Your task to perform on an android device: toggle location history Image 0: 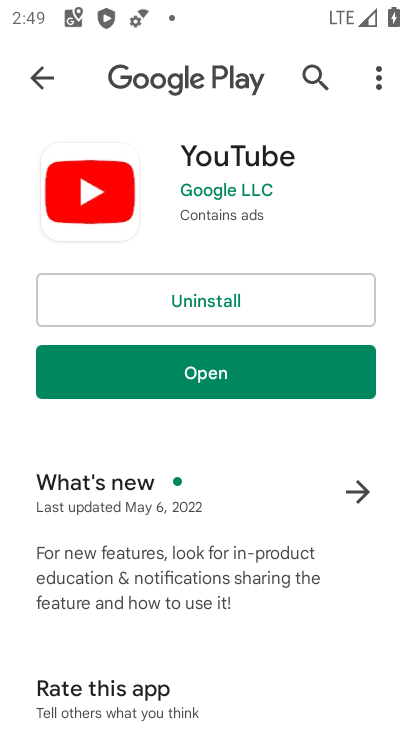
Step 0: press back button
Your task to perform on an android device: toggle location history Image 1: 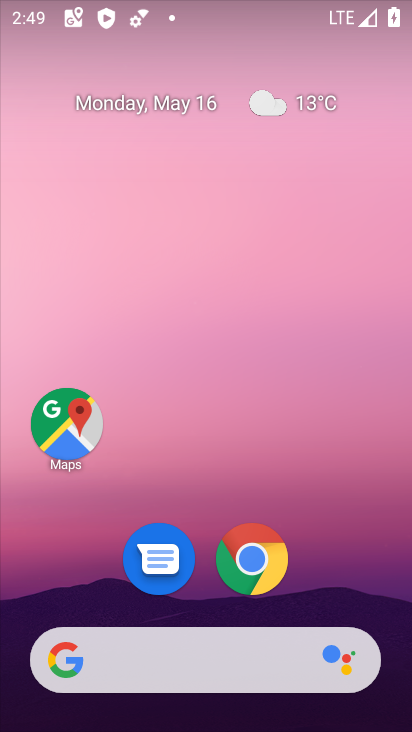
Step 1: click (251, 571)
Your task to perform on an android device: toggle location history Image 2: 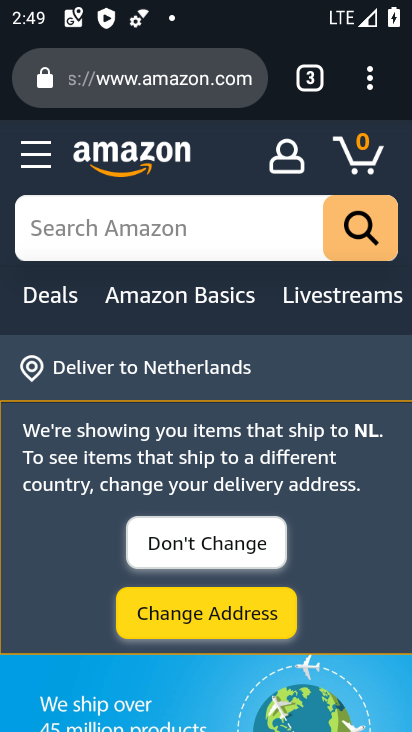
Step 2: drag from (373, 70) to (155, 619)
Your task to perform on an android device: toggle location history Image 3: 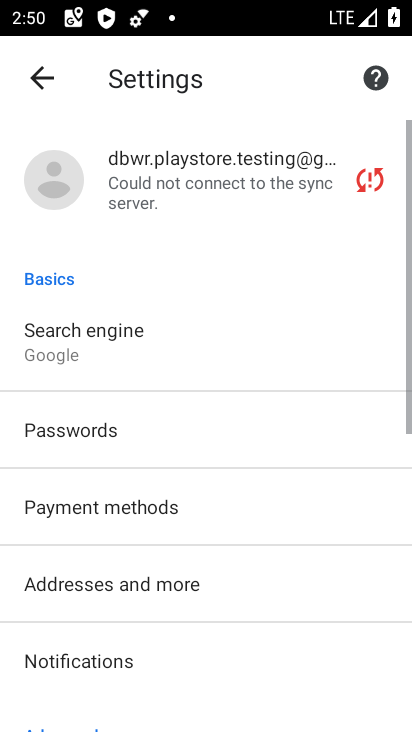
Step 3: drag from (118, 637) to (299, 50)
Your task to perform on an android device: toggle location history Image 4: 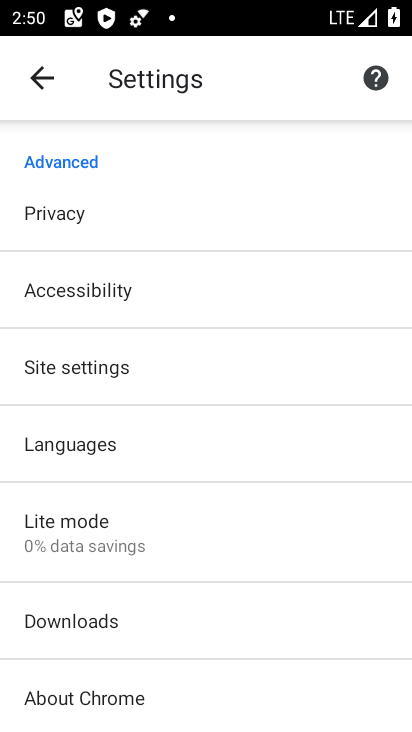
Step 4: click (189, 370)
Your task to perform on an android device: toggle location history Image 5: 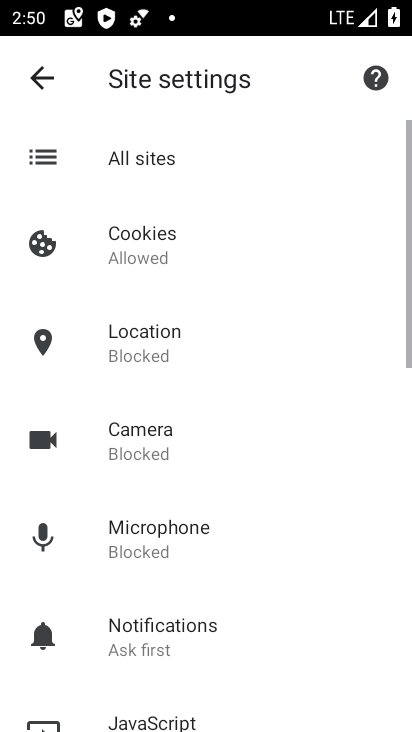
Step 5: click (170, 346)
Your task to perform on an android device: toggle location history Image 6: 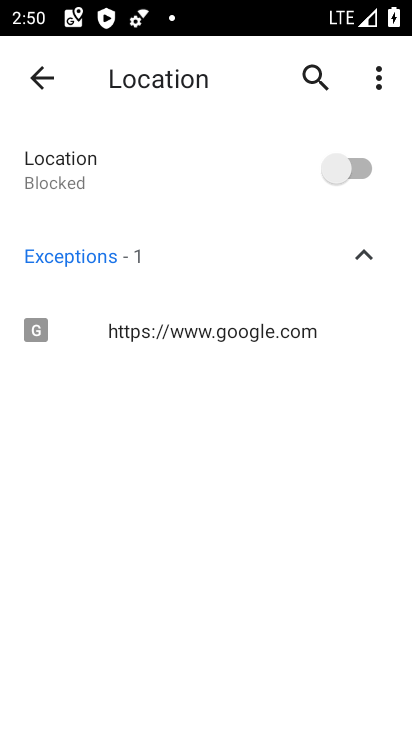
Step 6: click (34, 69)
Your task to perform on an android device: toggle location history Image 7: 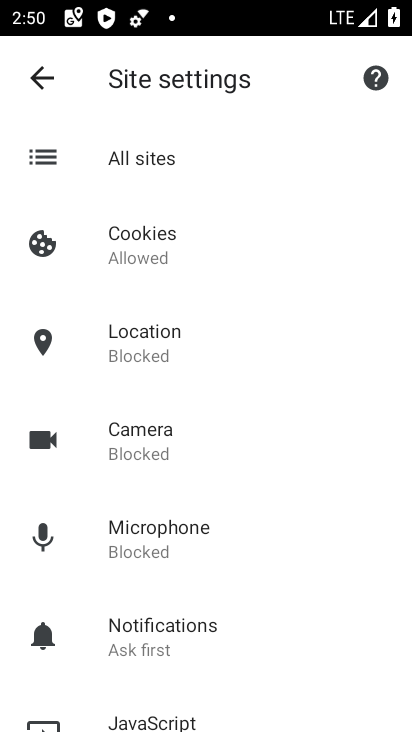
Step 7: press back button
Your task to perform on an android device: toggle location history Image 8: 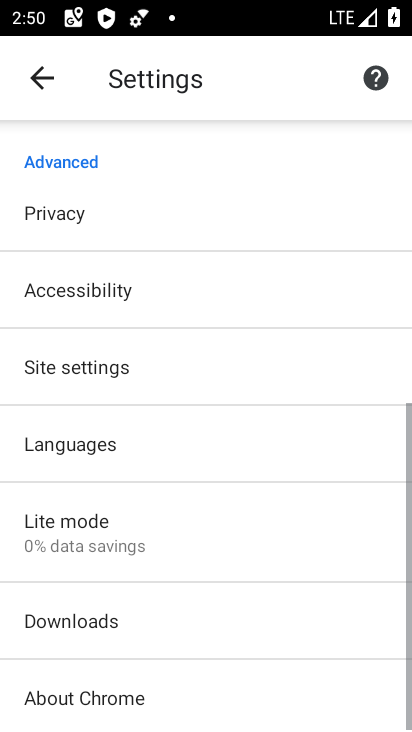
Step 8: press back button
Your task to perform on an android device: toggle location history Image 9: 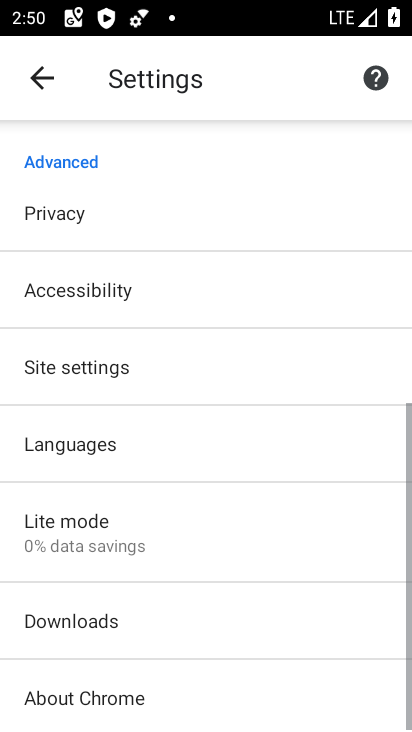
Step 9: press back button
Your task to perform on an android device: toggle location history Image 10: 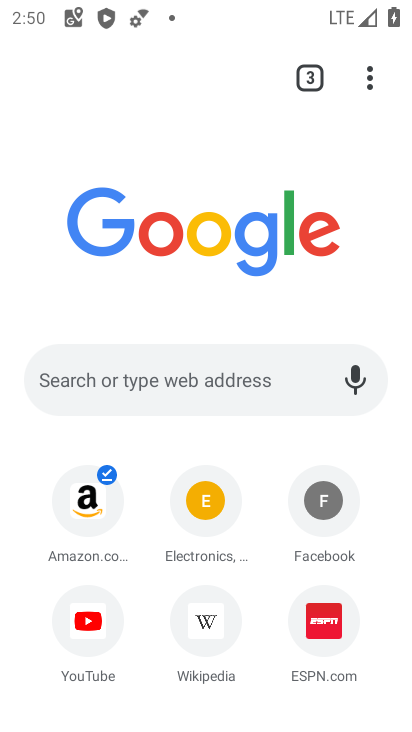
Step 10: press back button
Your task to perform on an android device: toggle location history Image 11: 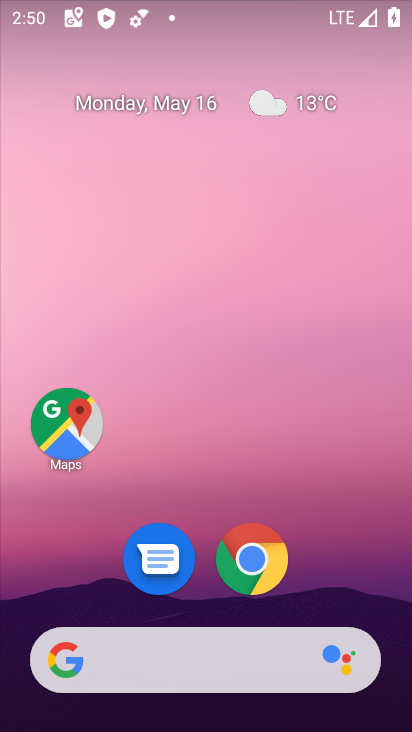
Step 11: drag from (218, 506) to (282, 77)
Your task to perform on an android device: toggle location history Image 12: 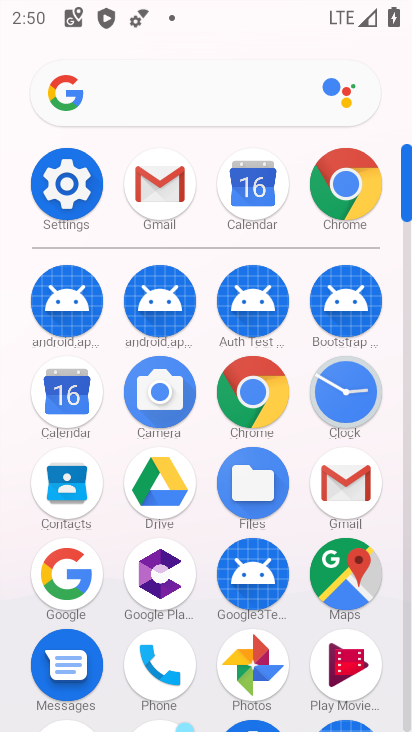
Step 12: click (72, 177)
Your task to perform on an android device: toggle location history Image 13: 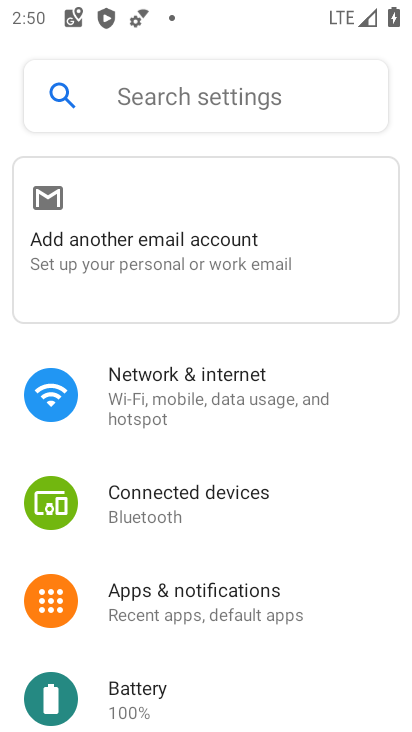
Step 13: drag from (218, 663) to (316, 200)
Your task to perform on an android device: toggle location history Image 14: 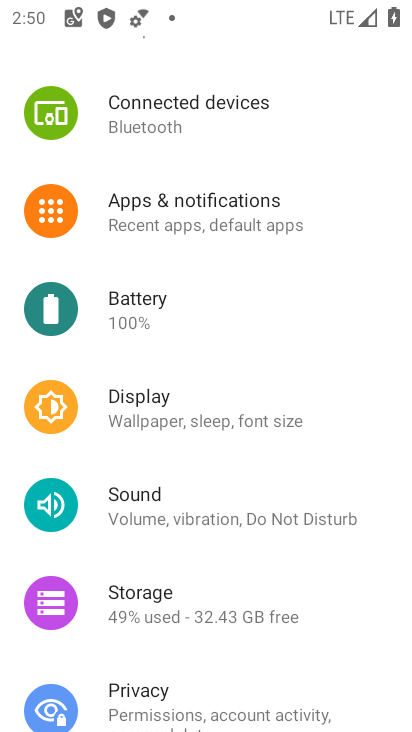
Step 14: drag from (173, 607) to (287, 178)
Your task to perform on an android device: toggle location history Image 15: 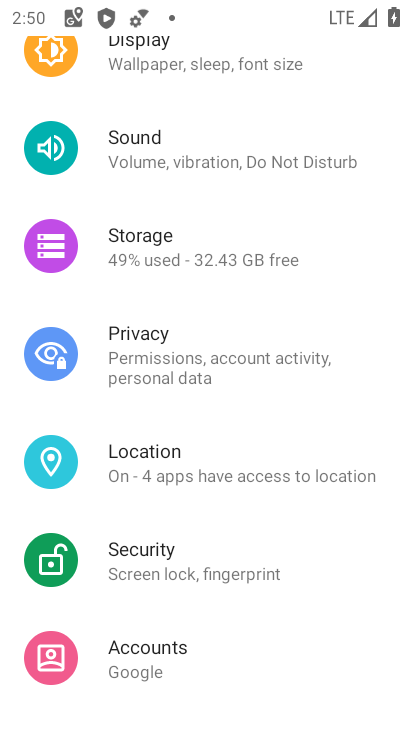
Step 15: click (144, 445)
Your task to perform on an android device: toggle location history Image 16: 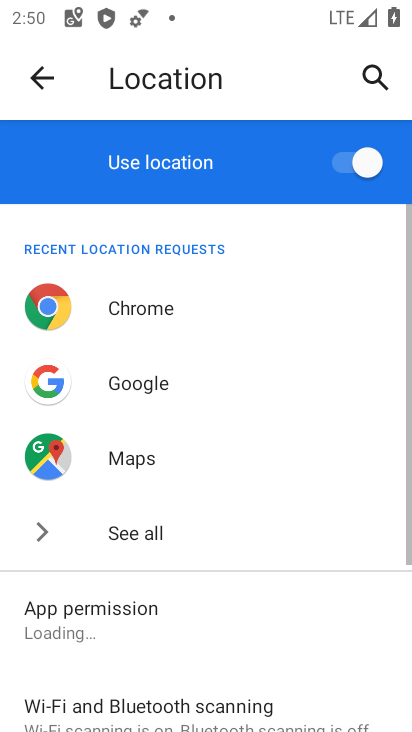
Step 16: drag from (169, 650) to (307, 123)
Your task to perform on an android device: toggle location history Image 17: 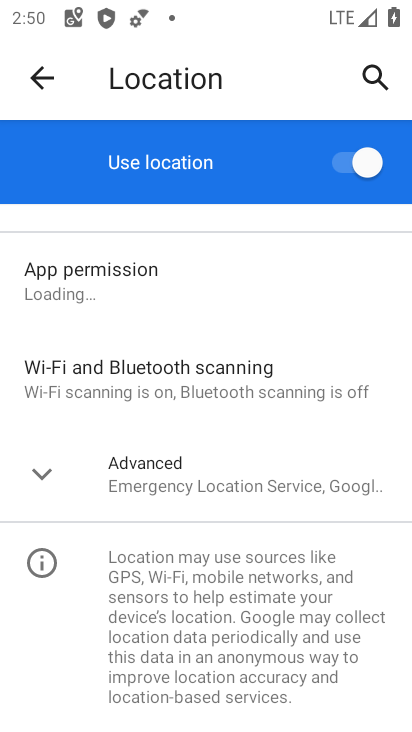
Step 17: click (251, 470)
Your task to perform on an android device: toggle location history Image 18: 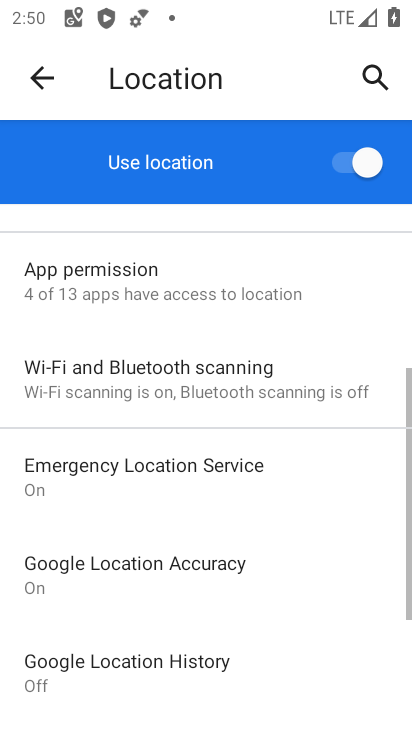
Step 18: drag from (192, 668) to (278, 372)
Your task to perform on an android device: toggle location history Image 19: 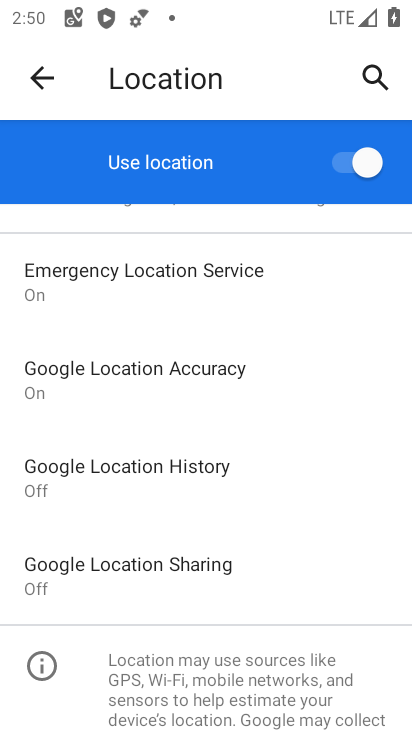
Step 19: click (136, 482)
Your task to perform on an android device: toggle location history Image 20: 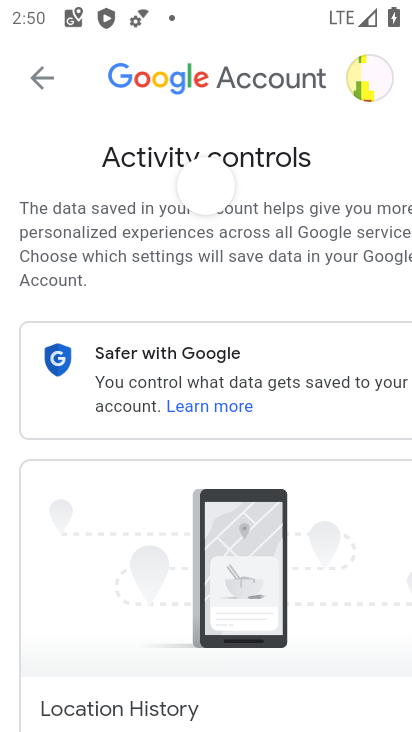
Step 20: drag from (242, 636) to (269, 97)
Your task to perform on an android device: toggle location history Image 21: 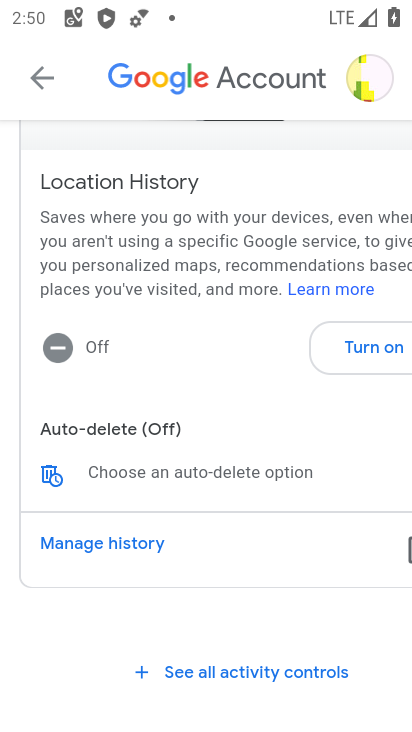
Step 21: click (365, 342)
Your task to perform on an android device: toggle location history Image 22: 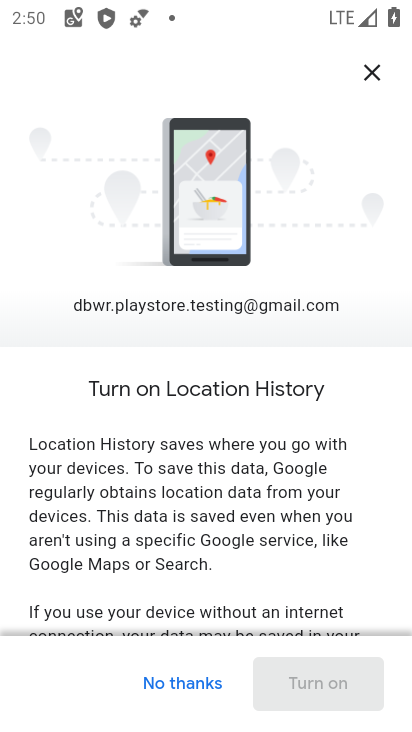
Step 22: drag from (249, 548) to (316, 64)
Your task to perform on an android device: toggle location history Image 23: 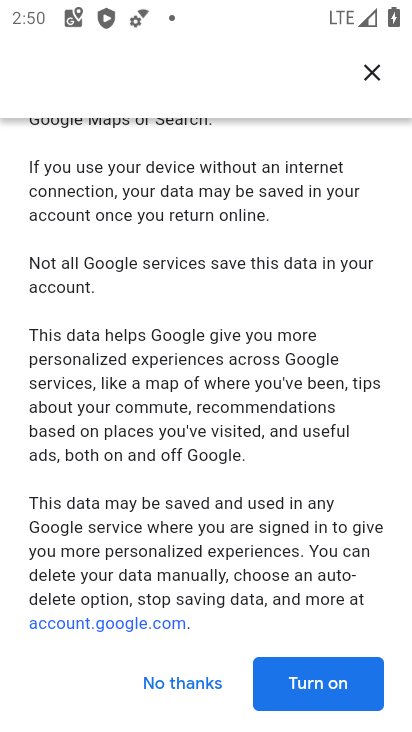
Step 23: drag from (190, 617) to (257, 147)
Your task to perform on an android device: toggle location history Image 24: 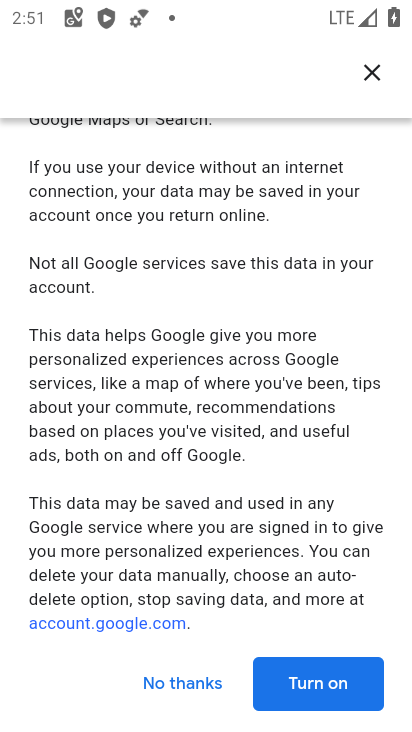
Step 24: click (291, 691)
Your task to perform on an android device: toggle location history Image 25: 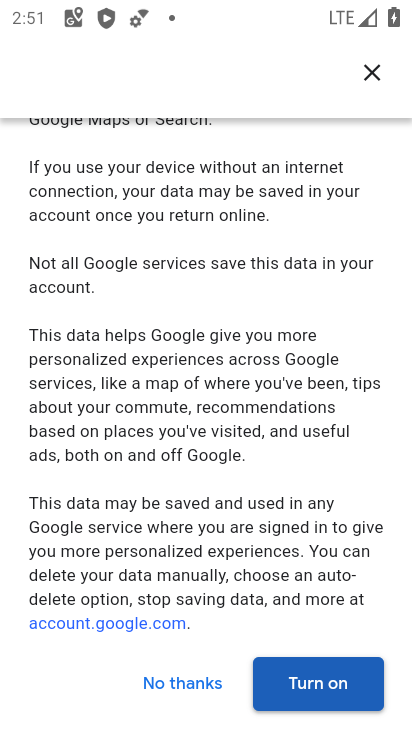
Step 25: click (312, 681)
Your task to perform on an android device: toggle location history Image 26: 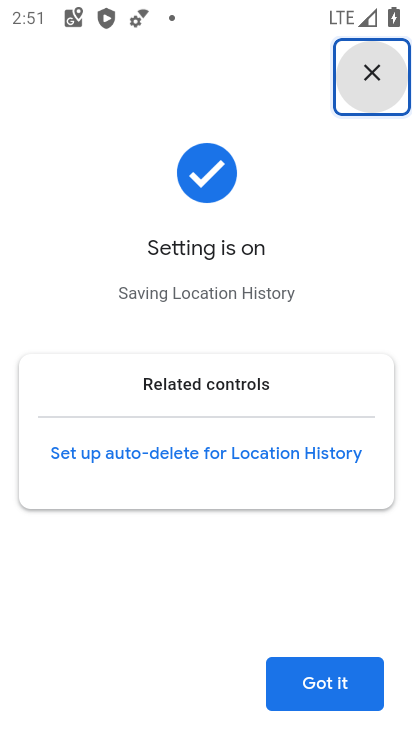
Step 26: task complete